Your task to perform on an android device: uninstall "Speedtest by Ookla" Image 0: 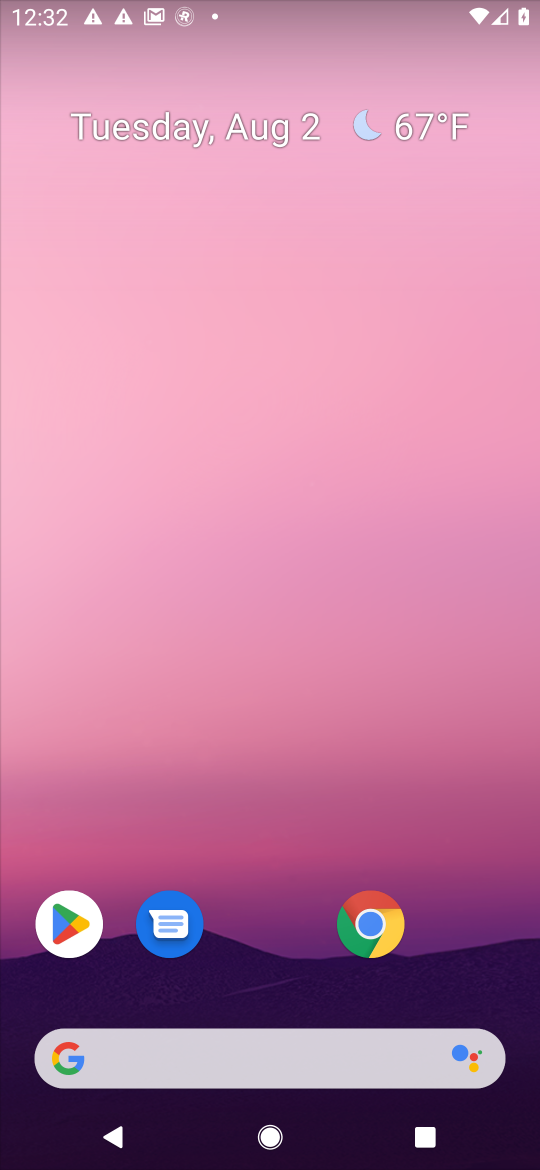
Step 0: click (63, 897)
Your task to perform on an android device: uninstall "Speedtest by Ookla" Image 1: 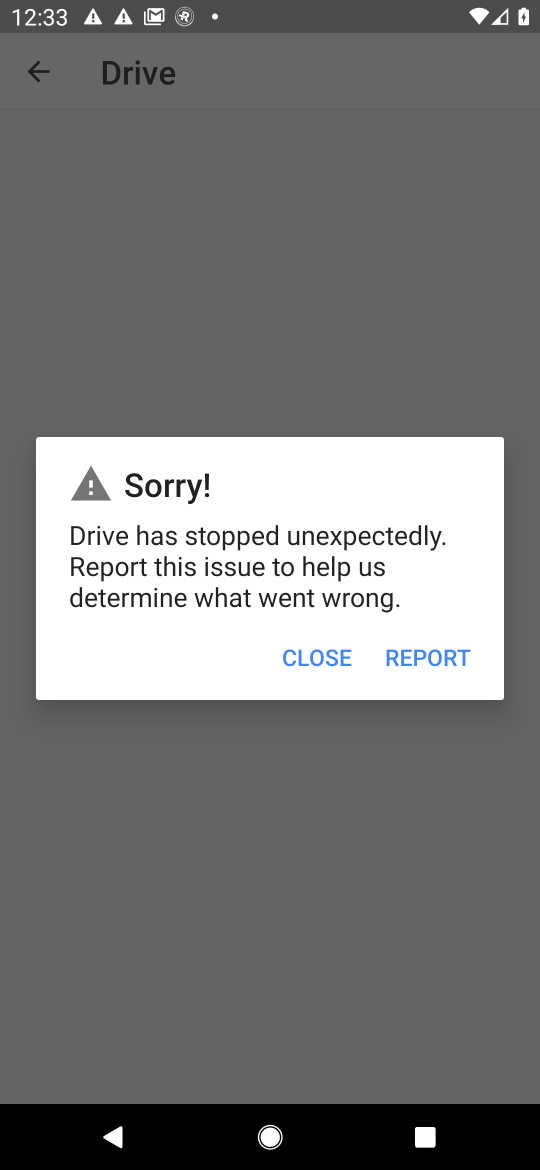
Step 1: press home button
Your task to perform on an android device: uninstall "Speedtest by Ookla" Image 2: 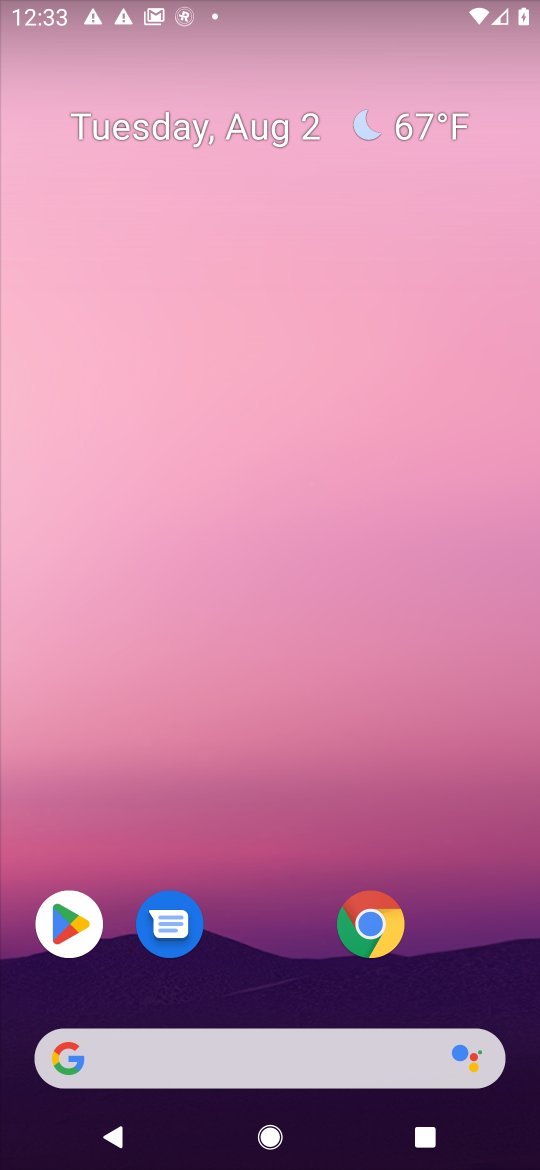
Step 2: click (65, 920)
Your task to perform on an android device: uninstall "Speedtest by Ookla" Image 3: 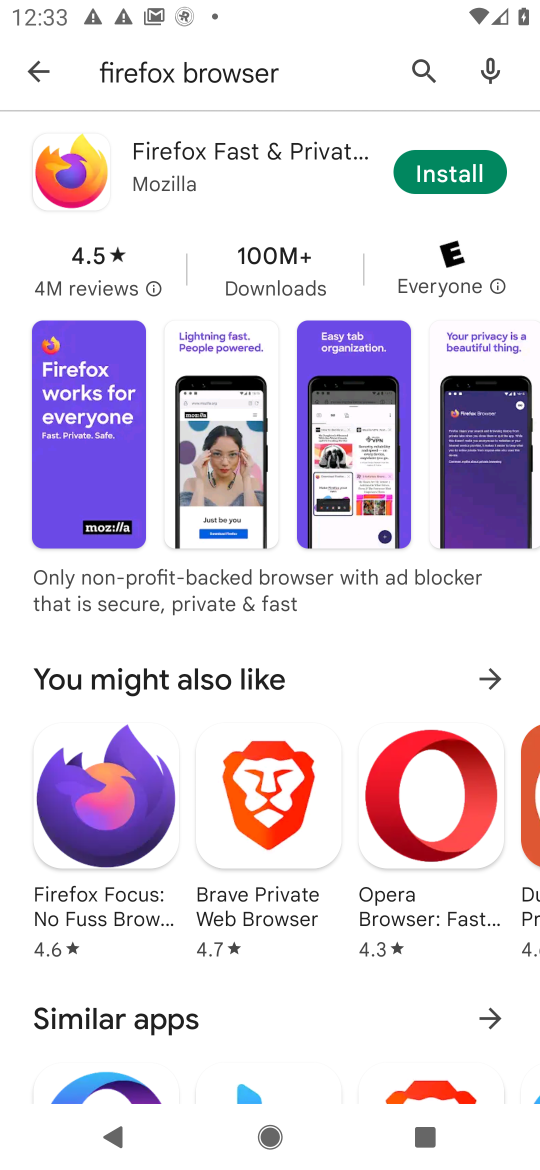
Step 3: click (418, 75)
Your task to perform on an android device: uninstall "Speedtest by Ookla" Image 4: 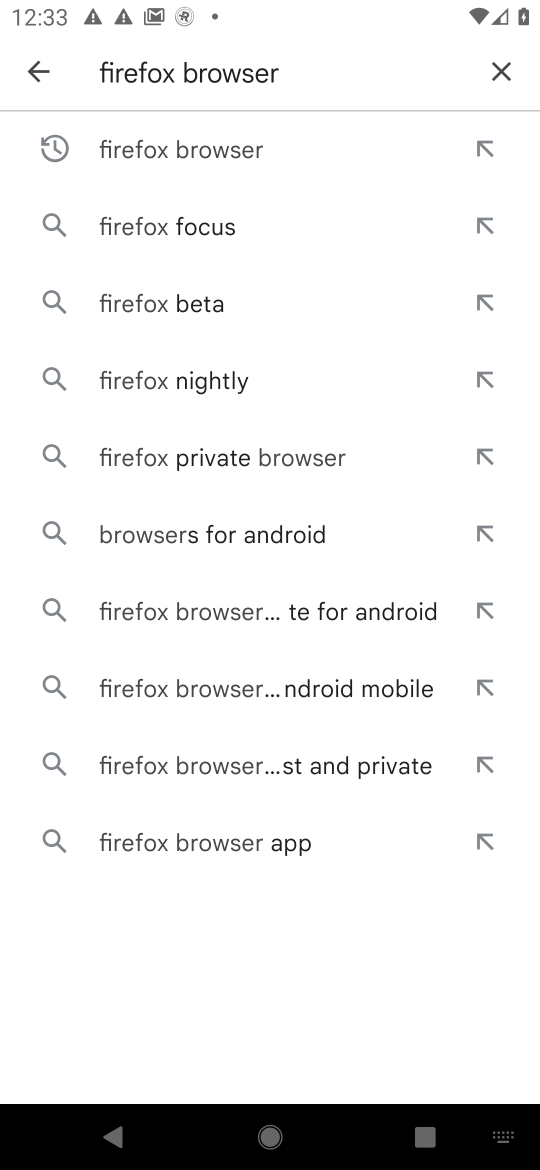
Step 4: click (501, 69)
Your task to perform on an android device: uninstall "Speedtest by Ookla" Image 5: 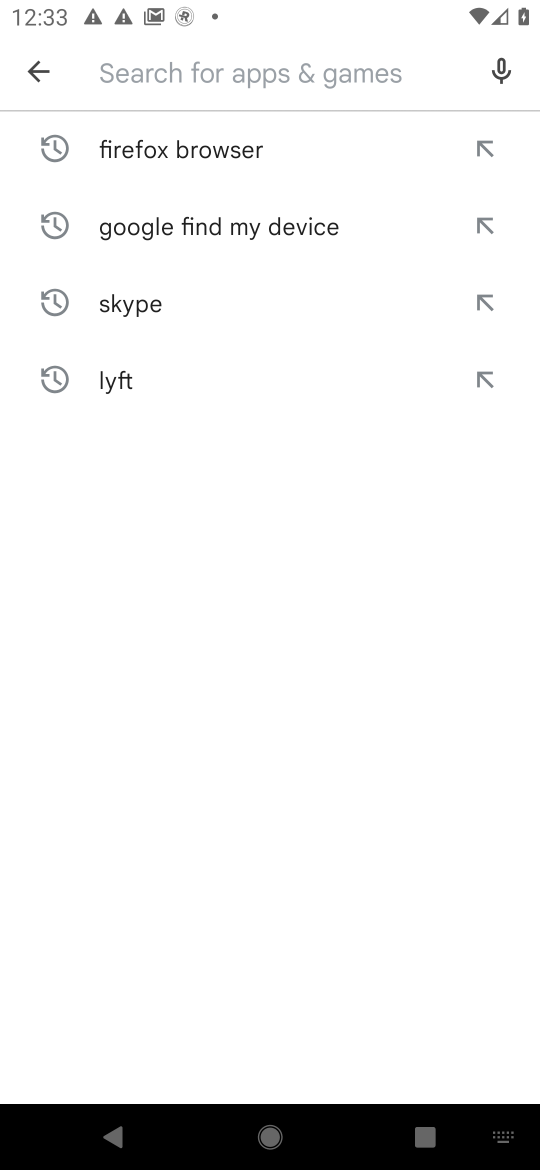
Step 5: type "Speedtest by Ookla"
Your task to perform on an android device: uninstall "Speedtest by Ookla" Image 6: 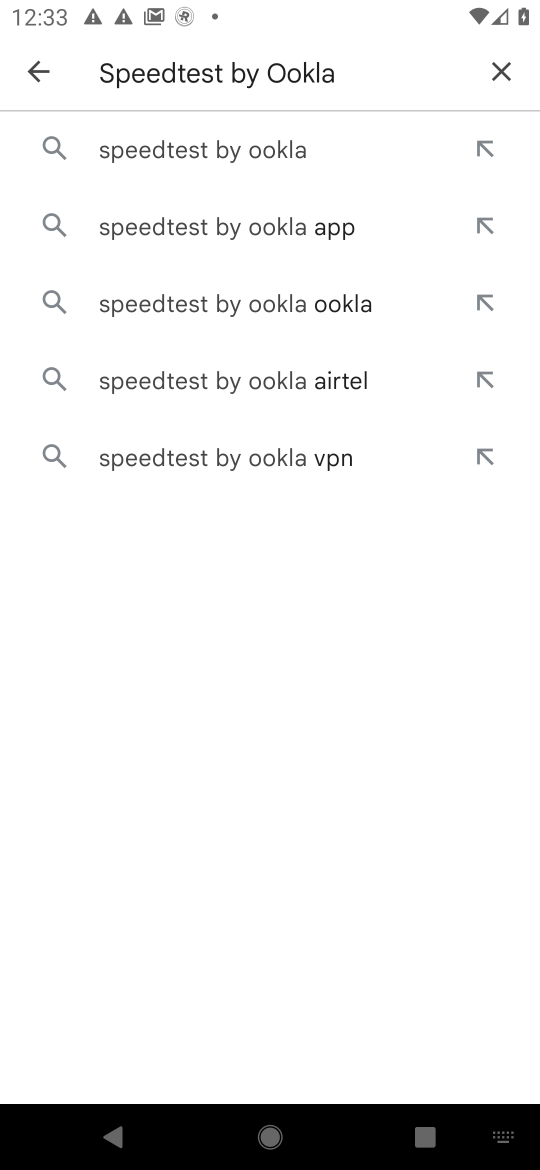
Step 6: click (324, 140)
Your task to perform on an android device: uninstall "Speedtest by Ookla" Image 7: 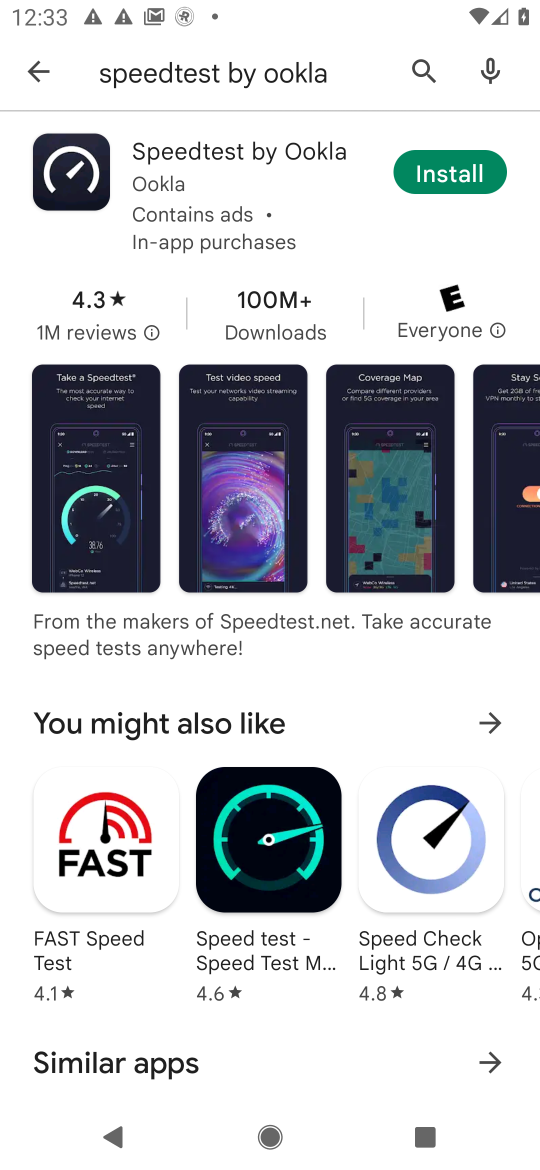
Step 7: click (252, 170)
Your task to perform on an android device: uninstall "Speedtest by Ookla" Image 8: 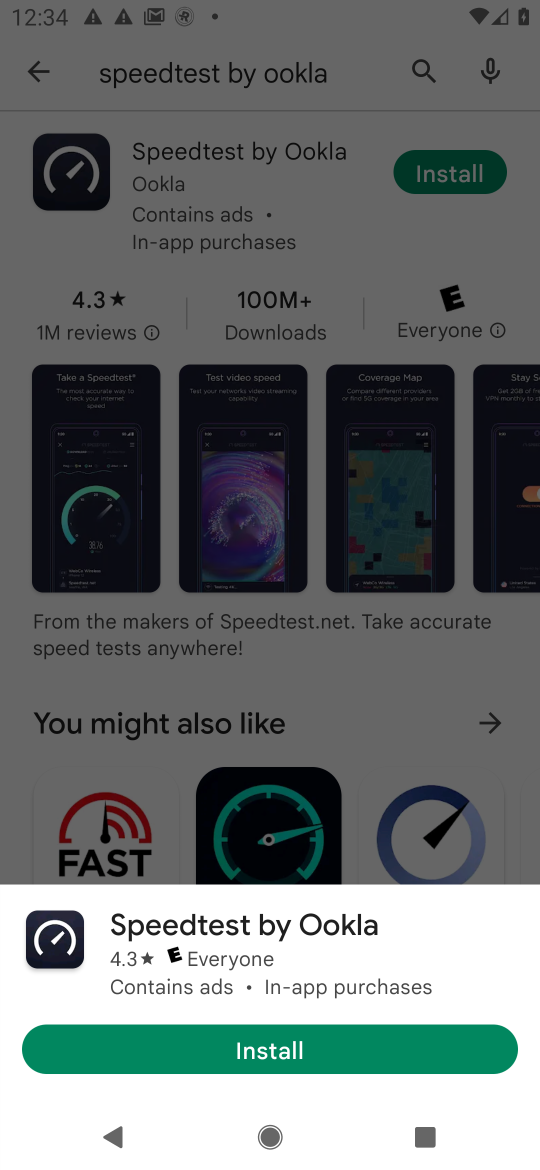
Step 8: task complete